Your task to perform on an android device: What's on my calendar tomorrow? Image 0: 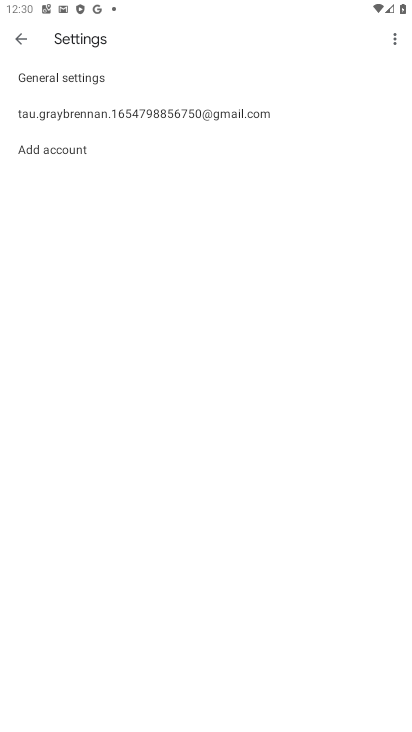
Step 0: press home button
Your task to perform on an android device: What's on my calendar tomorrow? Image 1: 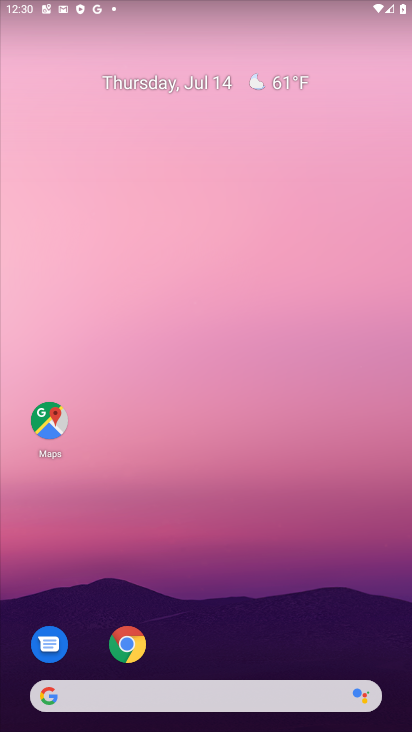
Step 1: drag from (226, 629) to (230, 216)
Your task to perform on an android device: What's on my calendar tomorrow? Image 2: 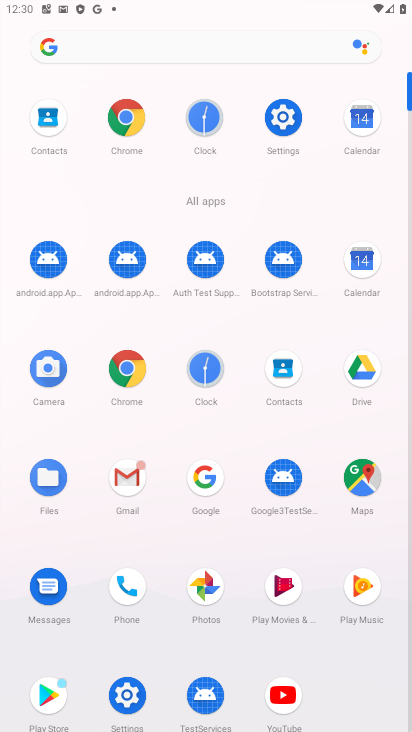
Step 2: click (355, 251)
Your task to perform on an android device: What's on my calendar tomorrow? Image 3: 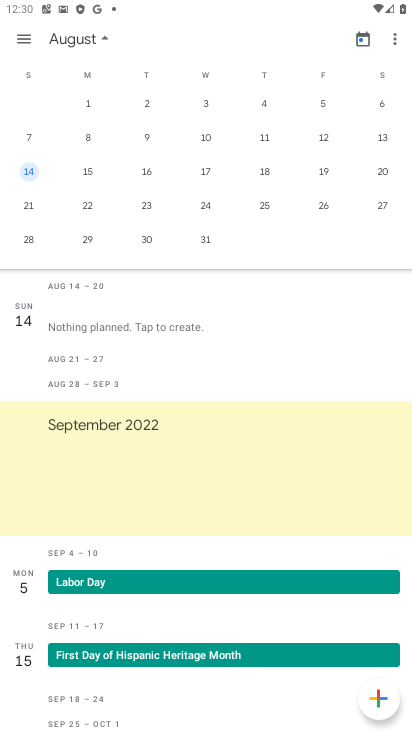
Step 3: drag from (83, 173) to (410, 217)
Your task to perform on an android device: What's on my calendar tomorrow? Image 4: 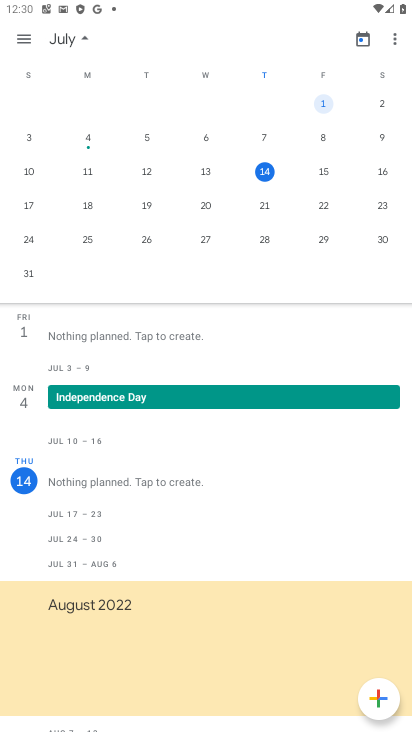
Step 4: click (324, 166)
Your task to perform on an android device: What's on my calendar tomorrow? Image 5: 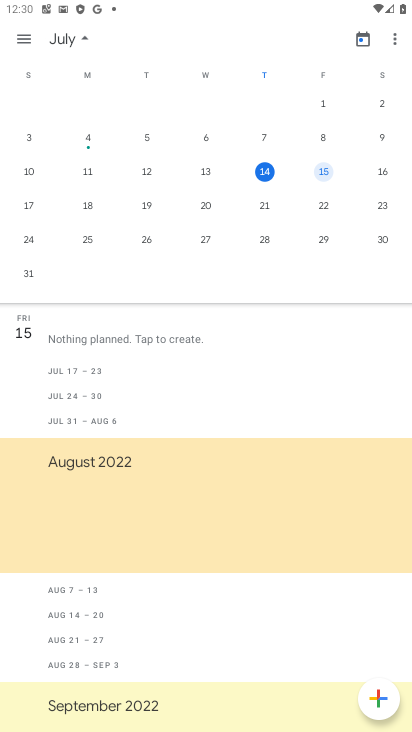
Step 5: task complete